Your task to perform on an android device: Open the phone app and click the voicemail tab. Image 0: 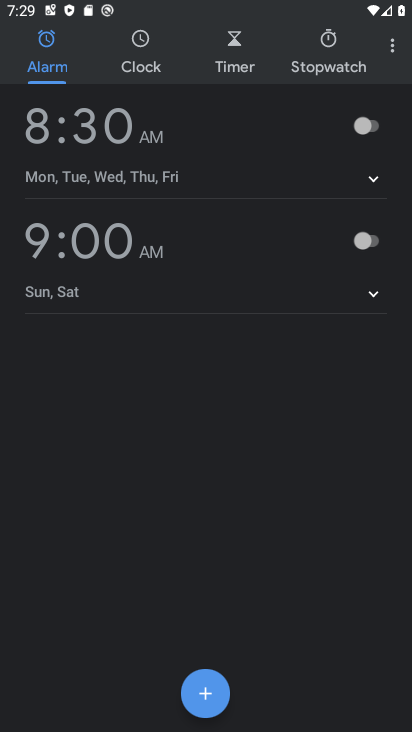
Step 0: press home button
Your task to perform on an android device: Open the phone app and click the voicemail tab. Image 1: 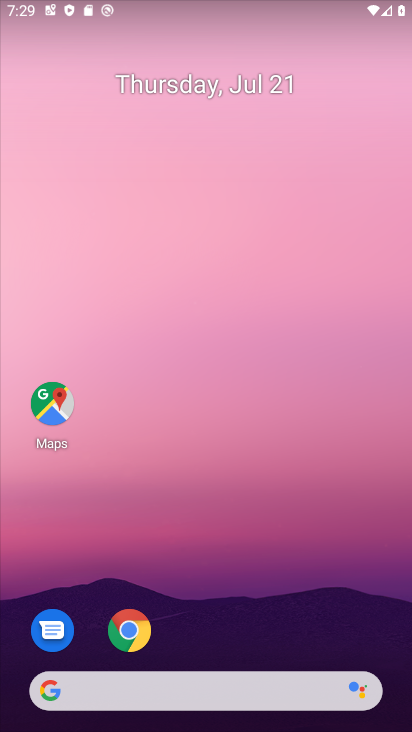
Step 1: drag from (241, 728) to (246, 85)
Your task to perform on an android device: Open the phone app and click the voicemail tab. Image 2: 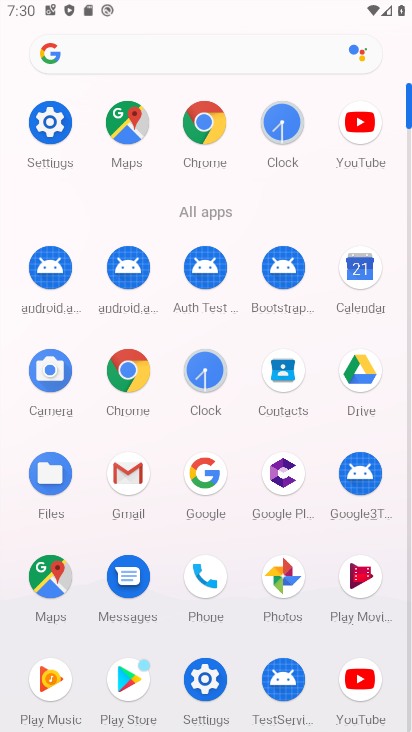
Step 2: click (197, 585)
Your task to perform on an android device: Open the phone app and click the voicemail tab. Image 3: 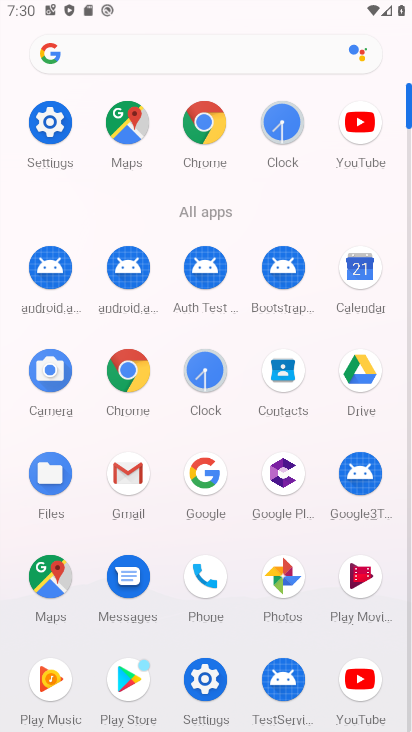
Step 3: click (197, 585)
Your task to perform on an android device: Open the phone app and click the voicemail tab. Image 4: 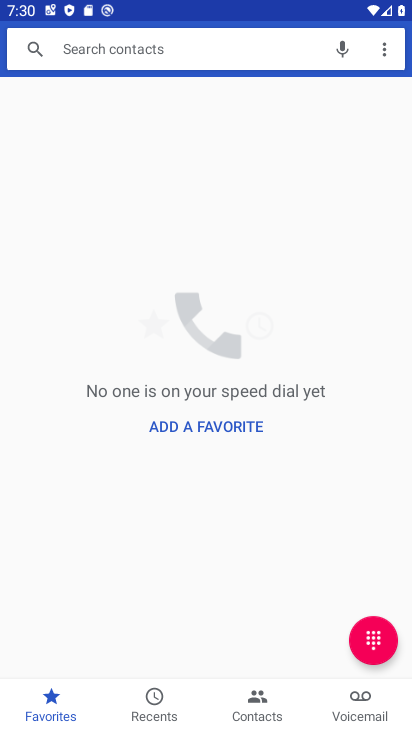
Step 4: click (363, 708)
Your task to perform on an android device: Open the phone app and click the voicemail tab. Image 5: 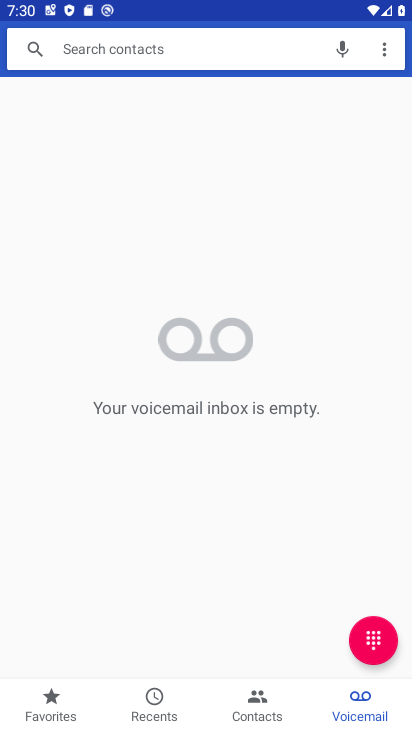
Step 5: click (361, 698)
Your task to perform on an android device: Open the phone app and click the voicemail tab. Image 6: 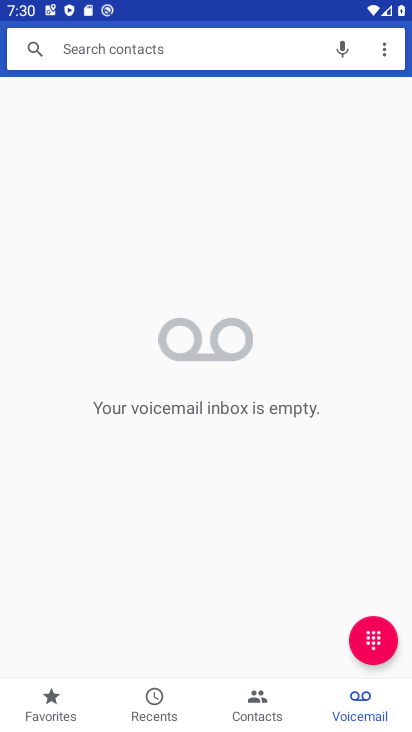
Step 6: click (357, 709)
Your task to perform on an android device: Open the phone app and click the voicemail tab. Image 7: 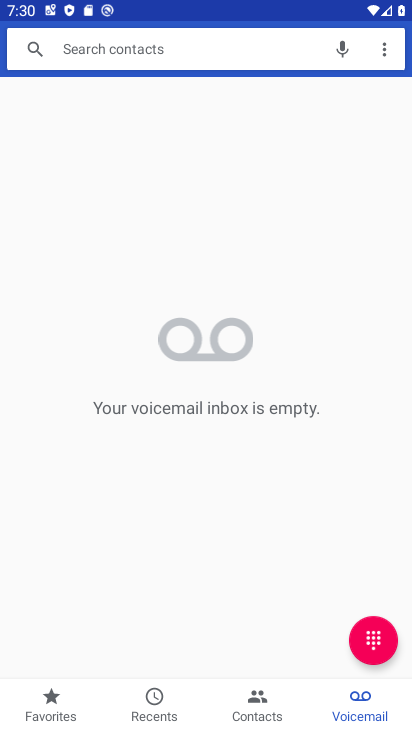
Step 7: click (357, 713)
Your task to perform on an android device: Open the phone app and click the voicemail tab. Image 8: 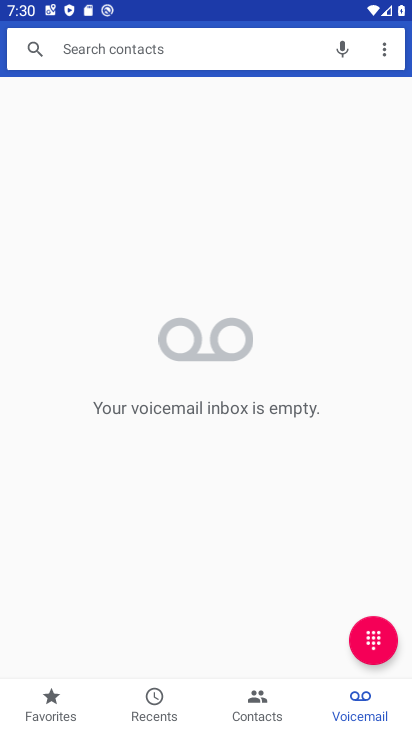
Step 8: task complete